Your task to perform on an android device: remove spam from my inbox in the gmail app Image 0: 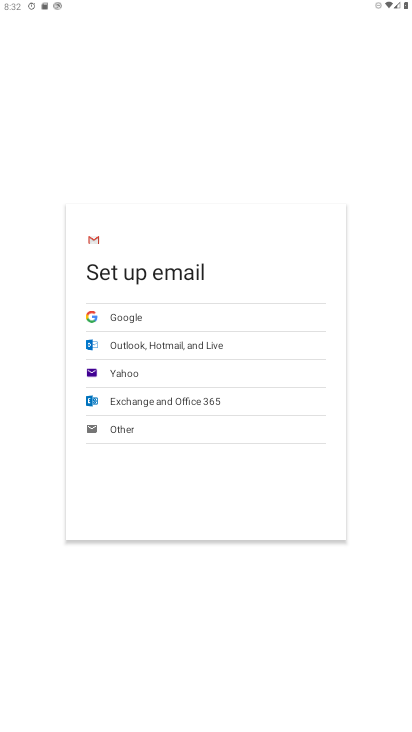
Step 0: press home button
Your task to perform on an android device: remove spam from my inbox in the gmail app Image 1: 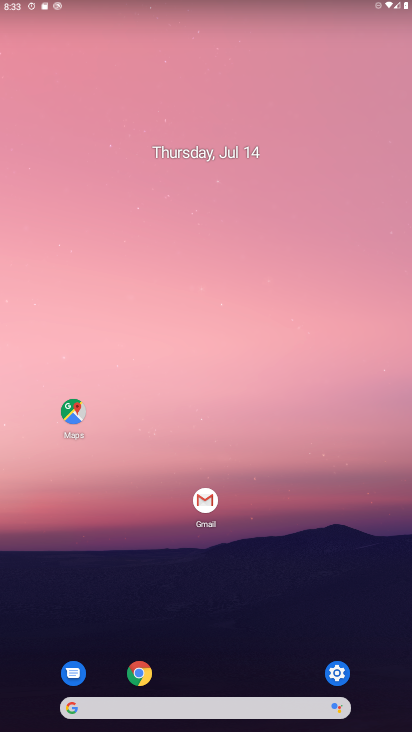
Step 1: drag from (246, 697) to (279, 219)
Your task to perform on an android device: remove spam from my inbox in the gmail app Image 2: 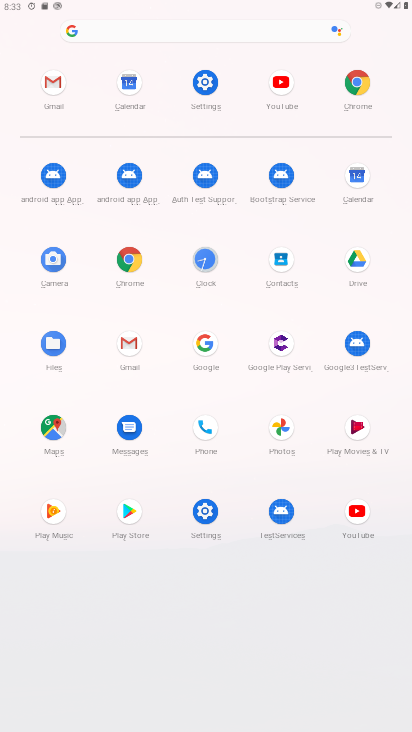
Step 2: click (123, 344)
Your task to perform on an android device: remove spam from my inbox in the gmail app Image 3: 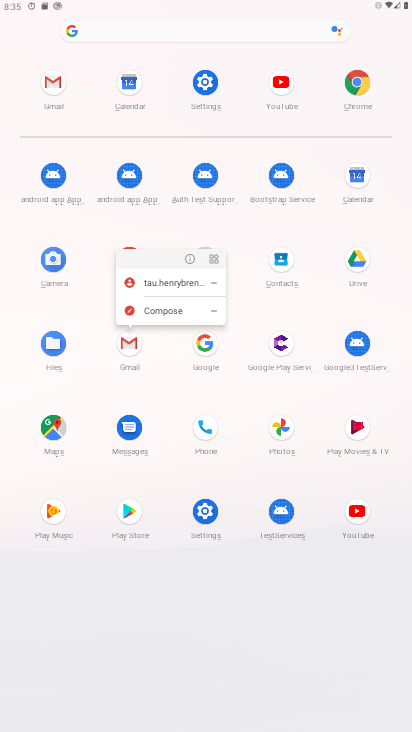
Step 3: click (130, 349)
Your task to perform on an android device: remove spam from my inbox in the gmail app Image 4: 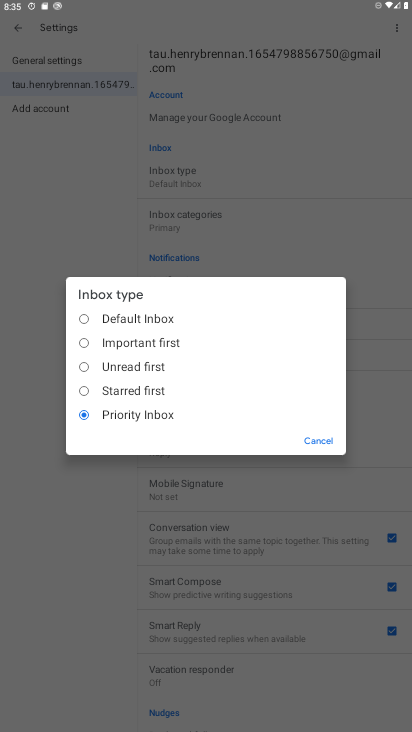
Step 4: click (314, 440)
Your task to perform on an android device: remove spam from my inbox in the gmail app Image 5: 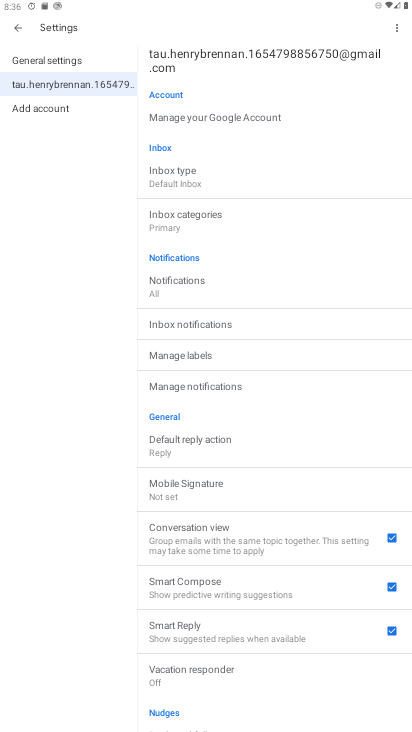
Step 5: click (15, 26)
Your task to perform on an android device: remove spam from my inbox in the gmail app Image 6: 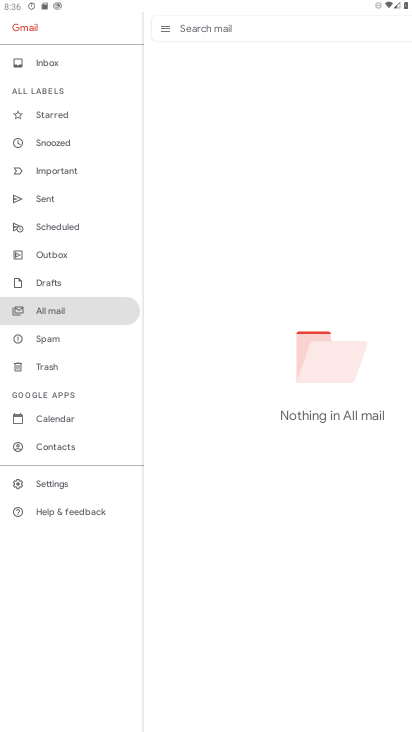
Step 6: click (52, 343)
Your task to perform on an android device: remove spam from my inbox in the gmail app Image 7: 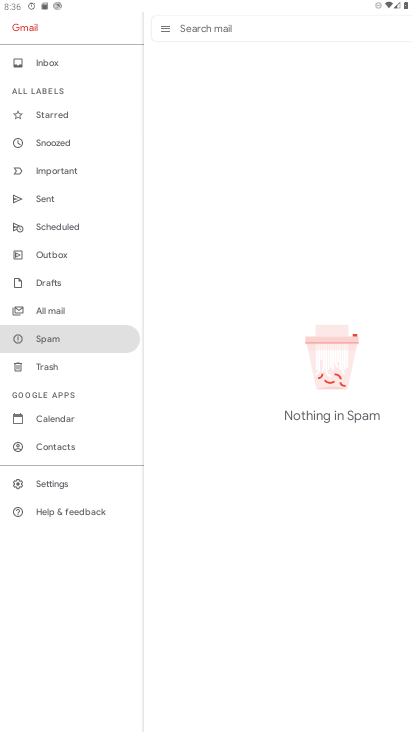
Step 7: task complete